Your task to perform on an android device: Go to privacy settings Image 0: 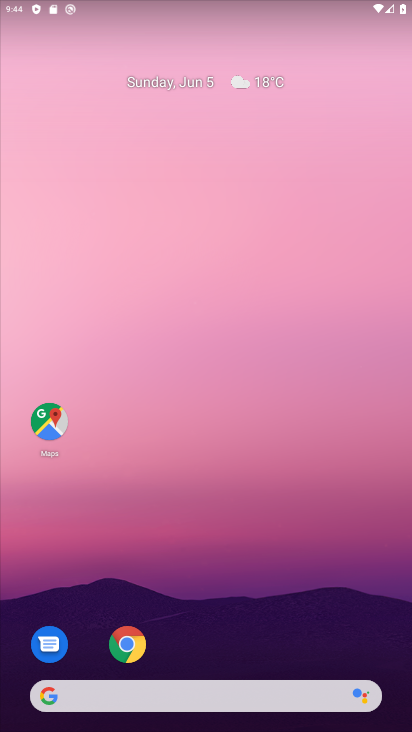
Step 0: drag from (162, 664) to (296, 230)
Your task to perform on an android device: Go to privacy settings Image 1: 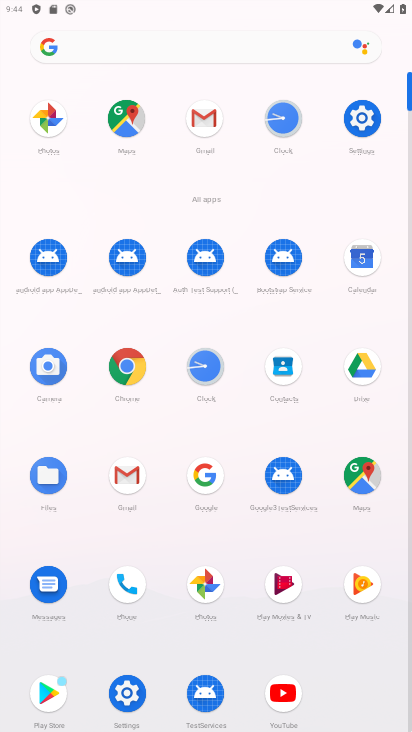
Step 1: click (115, 379)
Your task to perform on an android device: Go to privacy settings Image 2: 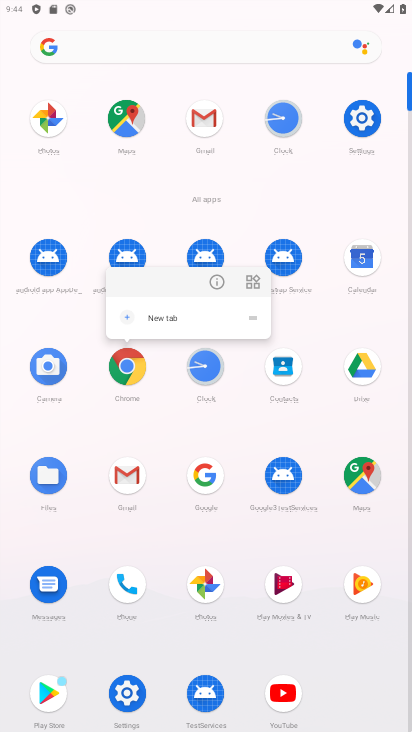
Step 2: click (136, 384)
Your task to perform on an android device: Go to privacy settings Image 3: 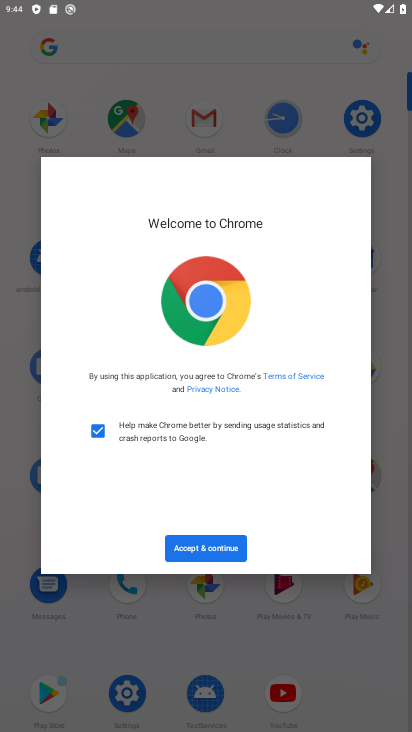
Step 3: click (205, 548)
Your task to perform on an android device: Go to privacy settings Image 4: 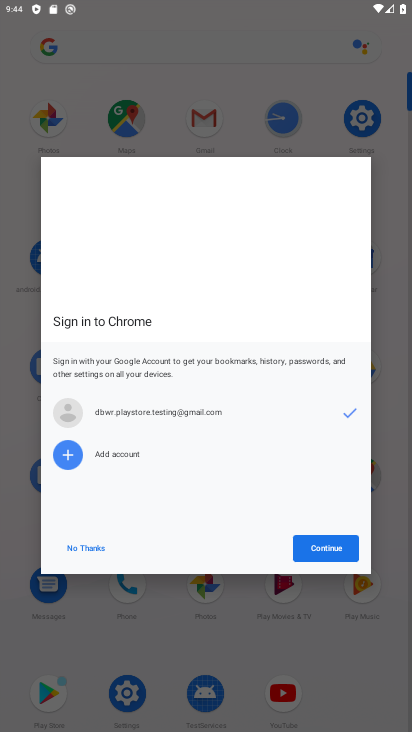
Step 4: click (319, 552)
Your task to perform on an android device: Go to privacy settings Image 5: 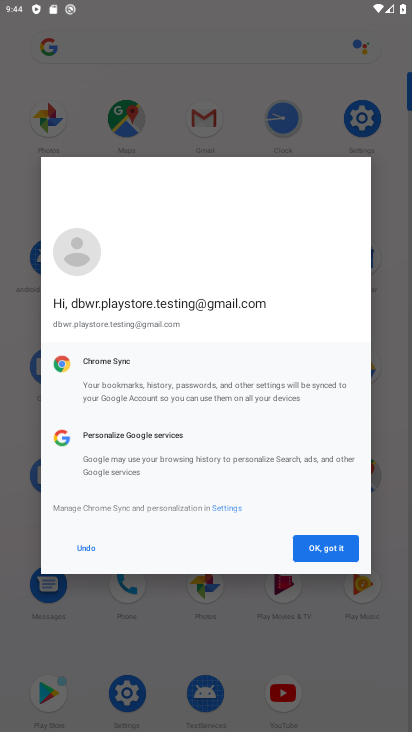
Step 5: click (350, 554)
Your task to perform on an android device: Go to privacy settings Image 6: 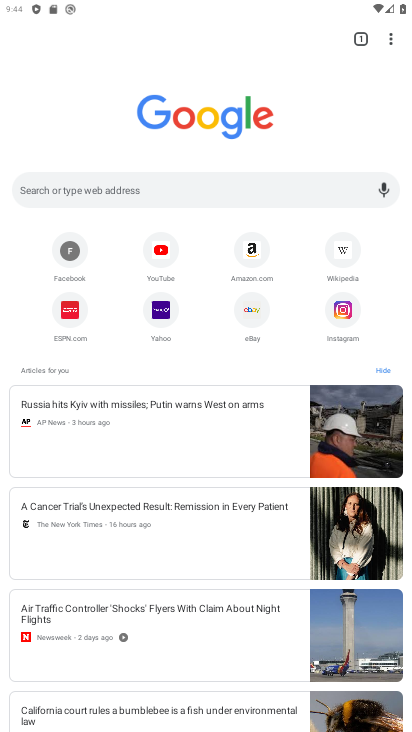
Step 6: drag from (392, 44) to (306, 335)
Your task to perform on an android device: Go to privacy settings Image 7: 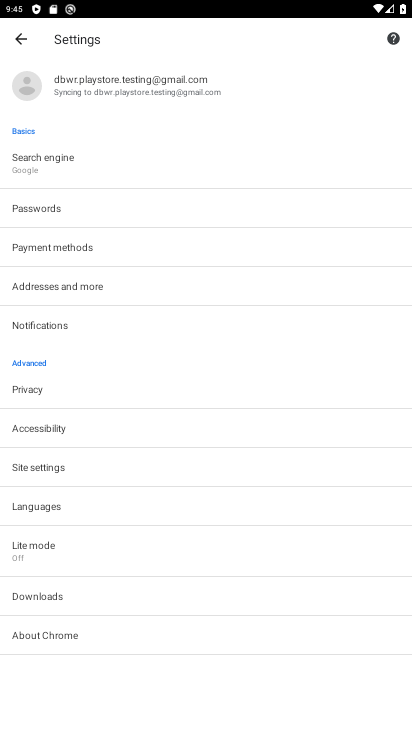
Step 7: click (185, 384)
Your task to perform on an android device: Go to privacy settings Image 8: 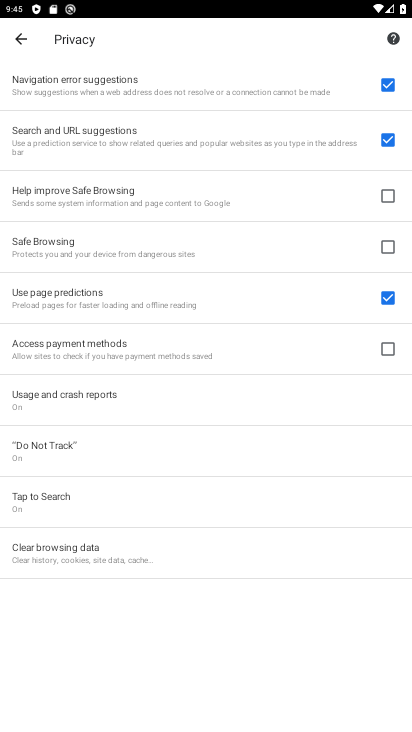
Step 8: task complete